Your task to perform on an android device: When is my next meeting? Image 0: 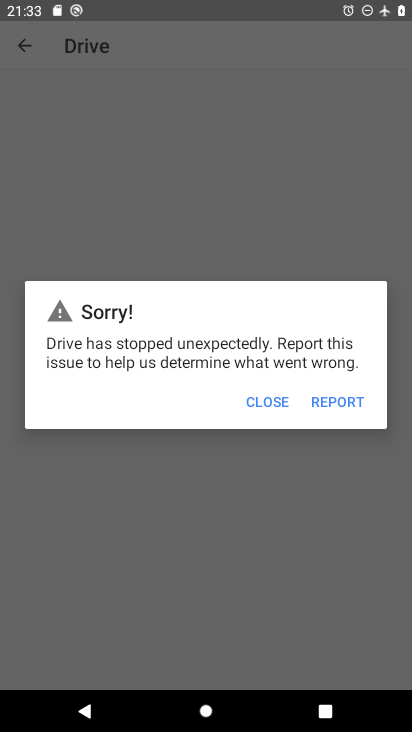
Step 0: press home button
Your task to perform on an android device: When is my next meeting? Image 1: 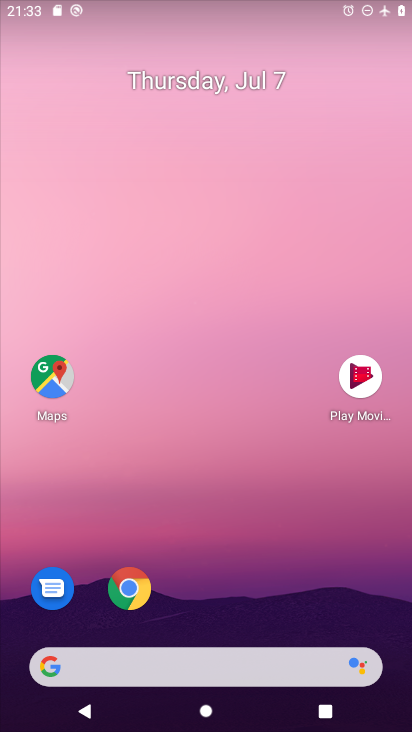
Step 1: drag from (224, 575) to (234, 154)
Your task to perform on an android device: When is my next meeting? Image 2: 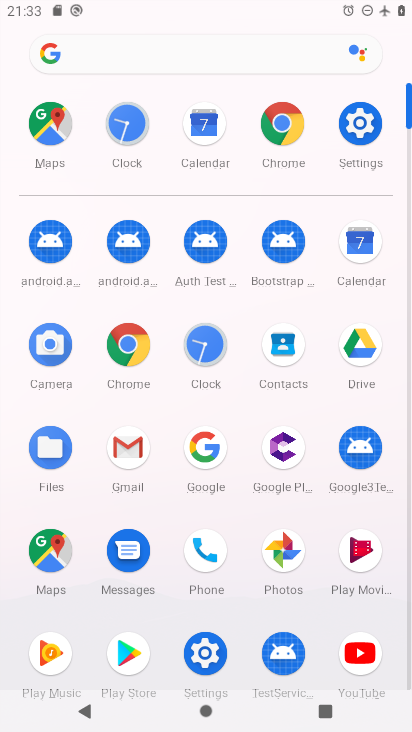
Step 2: click (349, 235)
Your task to perform on an android device: When is my next meeting? Image 3: 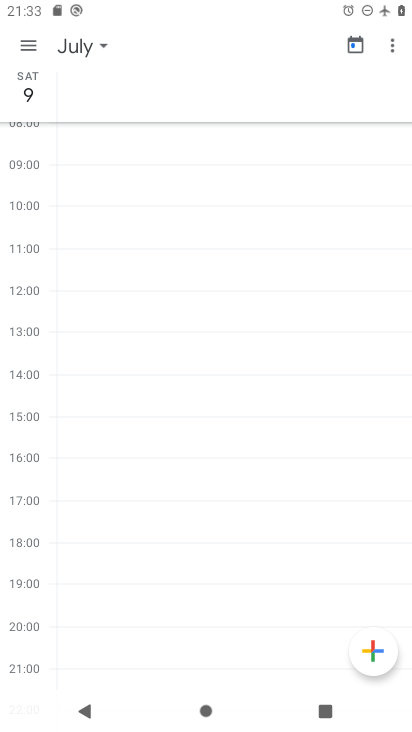
Step 3: task complete